Your task to perform on an android device: Search for seafood restaurants on Google Maps Image 0: 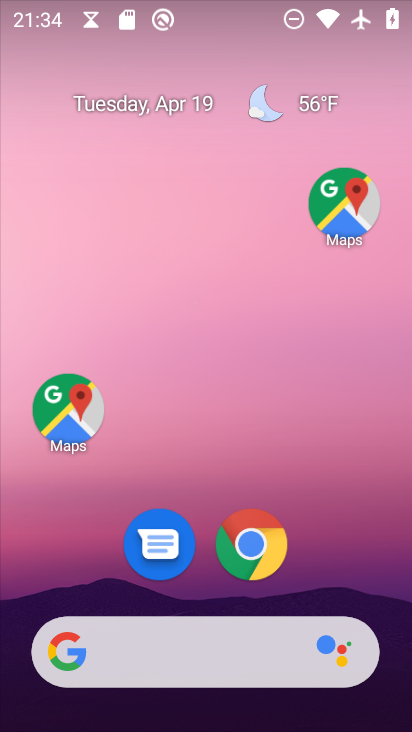
Step 0: drag from (192, 650) to (330, 73)
Your task to perform on an android device: Search for seafood restaurants on Google Maps Image 1: 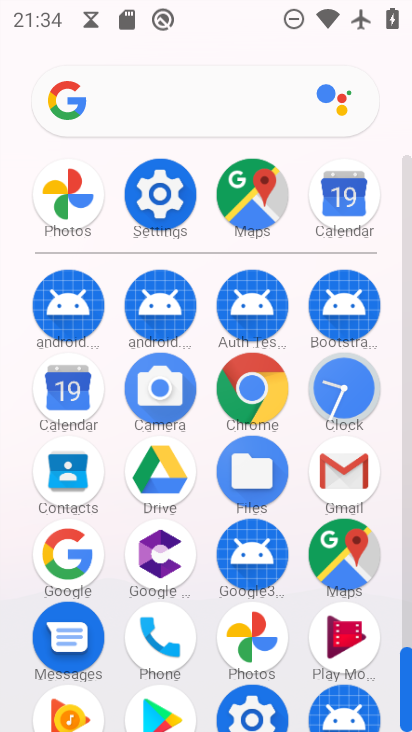
Step 1: click (259, 211)
Your task to perform on an android device: Search for seafood restaurants on Google Maps Image 2: 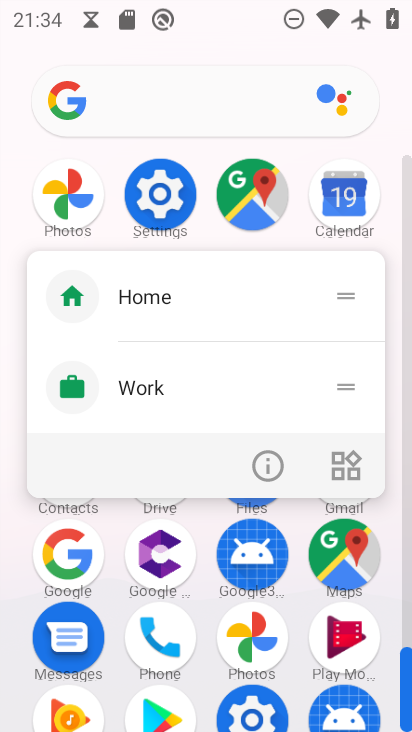
Step 2: click (254, 204)
Your task to perform on an android device: Search for seafood restaurants on Google Maps Image 3: 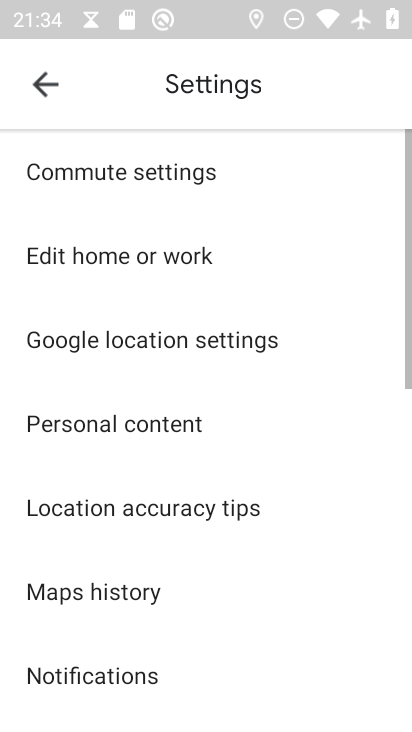
Step 3: click (50, 86)
Your task to perform on an android device: Search for seafood restaurants on Google Maps Image 4: 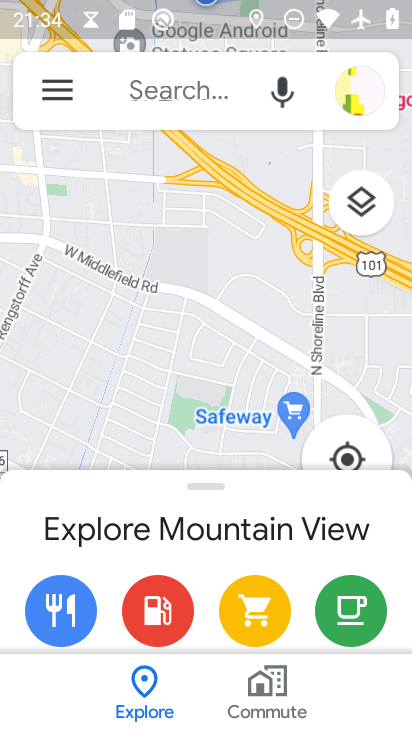
Step 4: click (155, 90)
Your task to perform on an android device: Search for seafood restaurants on Google Maps Image 5: 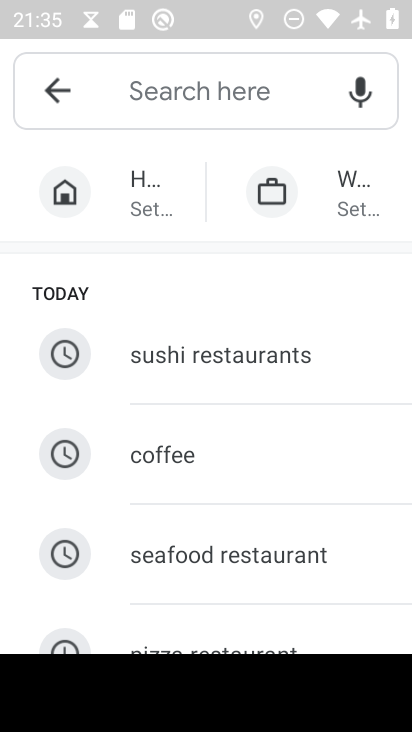
Step 5: click (230, 552)
Your task to perform on an android device: Search for seafood restaurants on Google Maps Image 6: 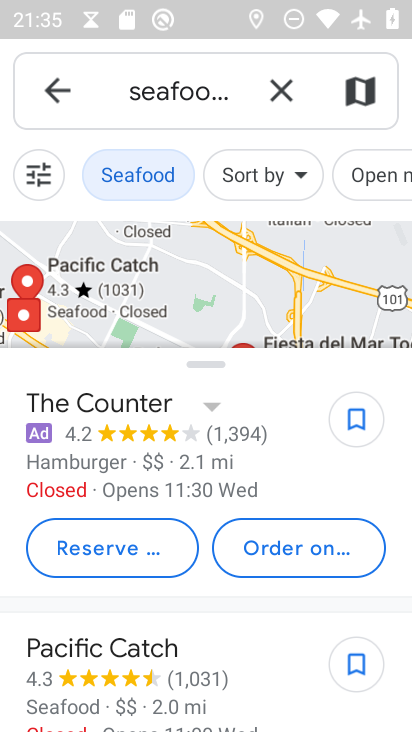
Step 6: task complete